Your task to perform on an android device: turn on location history Image 0: 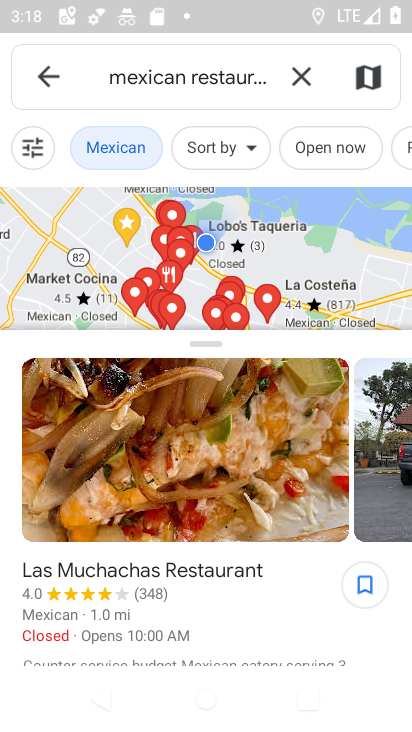
Step 0: press home button
Your task to perform on an android device: turn on location history Image 1: 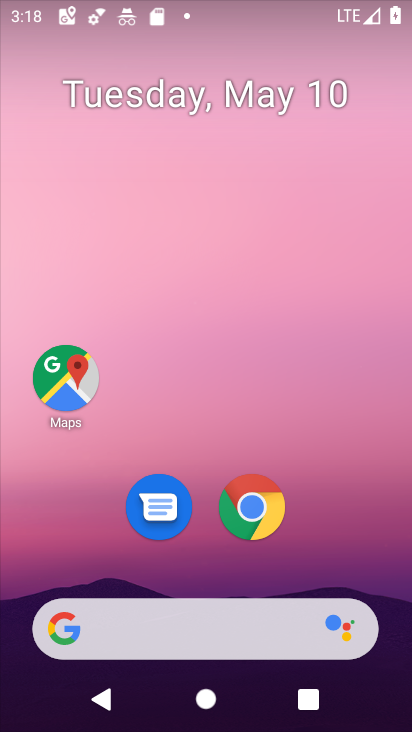
Step 1: drag from (210, 569) to (210, 175)
Your task to perform on an android device: turn on location history Image 2: 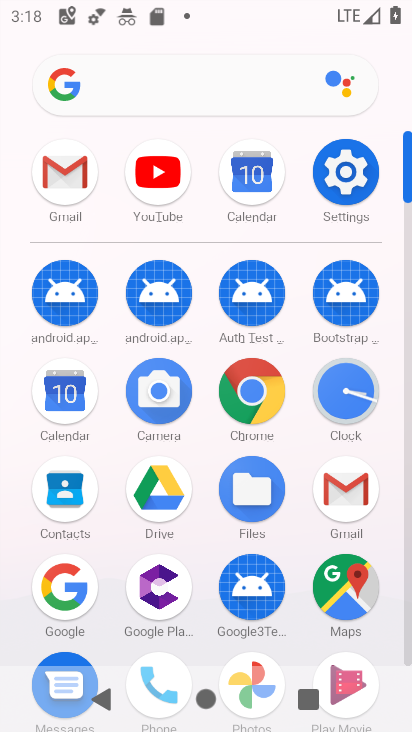
Step 2: click (339, 171)
Your task to perform on an android device: turn on location history Image 3: 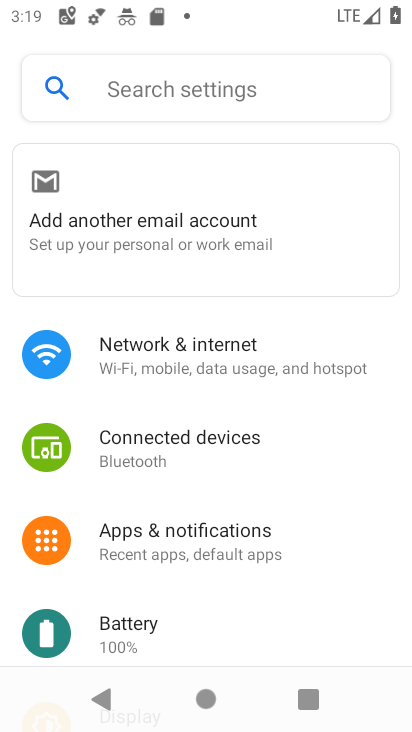
Step 3: drag from (213, 528) to (275, 204)
Your task to perform on an android device: turn on location history Image 4: 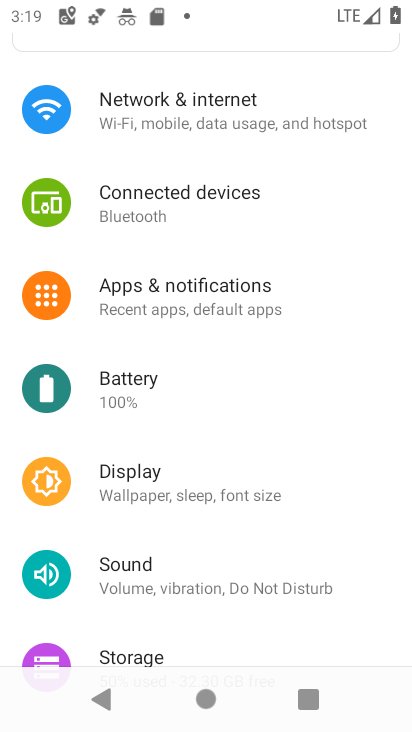
Step 4: drag from (171, 535) to (225, 196)
Your task to perform on an android device: turn on location history Image 5: 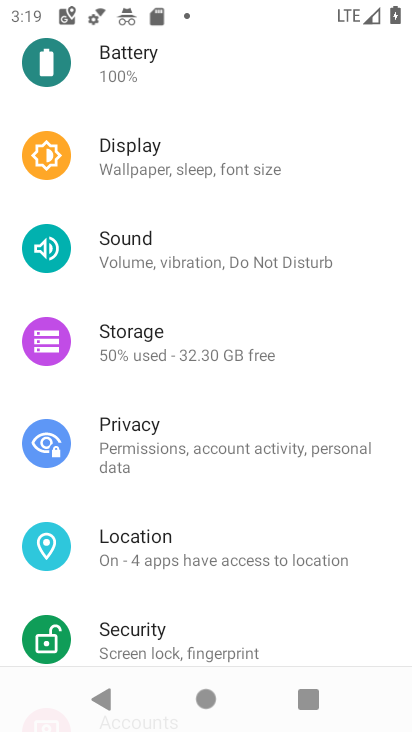
Step 5: click (169, 550)
Your task to perform on an android device: turn on location history Image 6: 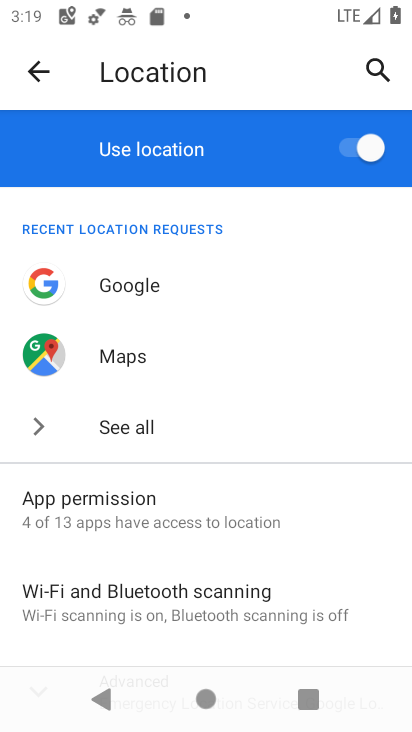
Step 6: drag from (128, 558) to (153, 311)
Your task to perform on an android device: turn on location history Image 7: 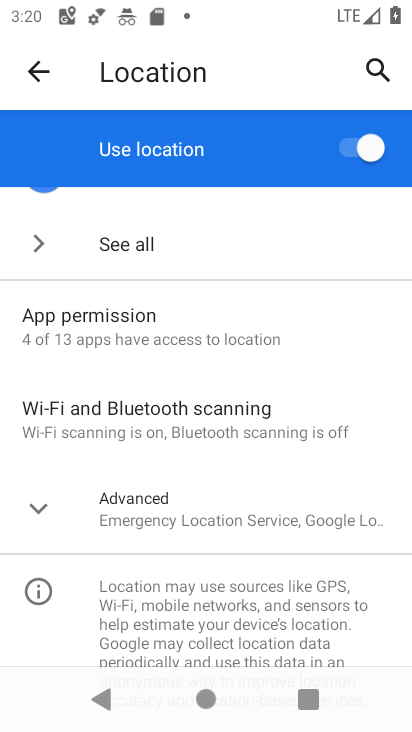
Step 7: click (49, 497)
Your task to perform on an android device: turn on location history Image 8: 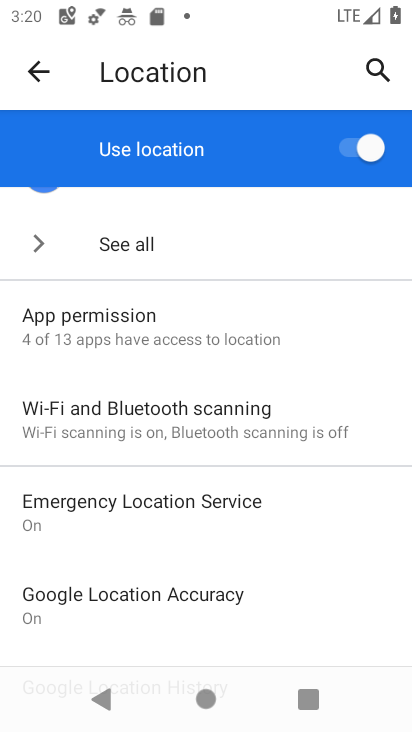
Step 8: drag from (239, 613) to (225, 356)
Your task to perform on an android device: turn on location history Image 9: 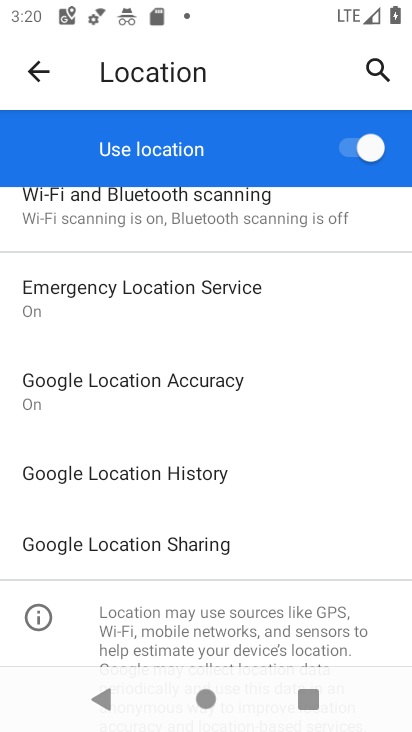
Step 9: click (153, 471)
Your task to perform on an android device: turn on location history Image 10: 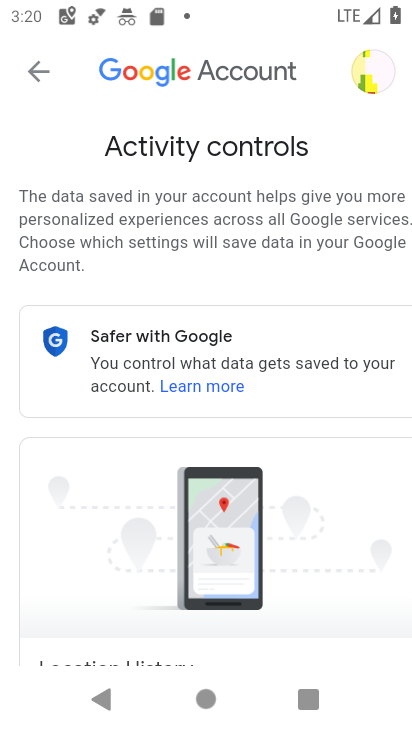
Step 10: task complete